Your task to perform on an android device: toggle translation in the chrome app Image 0: 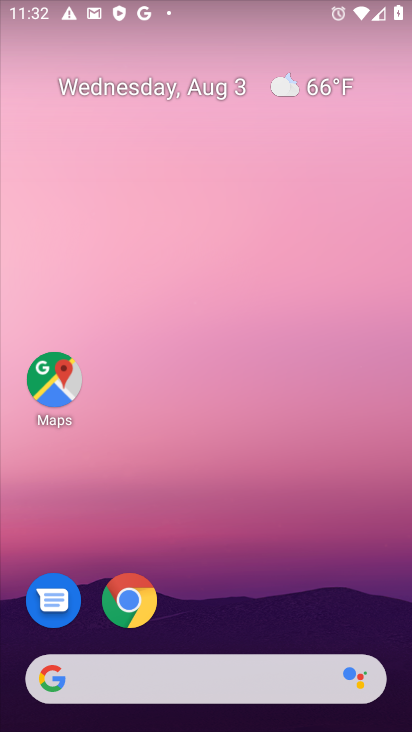
Step 0: drag from (226, 632) to (157, 46)
Your task to perform on an android device: toggle translation in the chrome app Image 1: 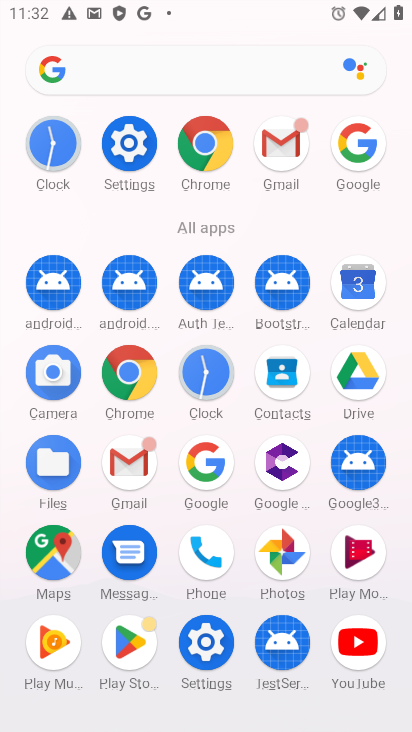
Step 1: click (198, 130)
Your task to perform on an android device: toggle translation in the chrome app Image 2: 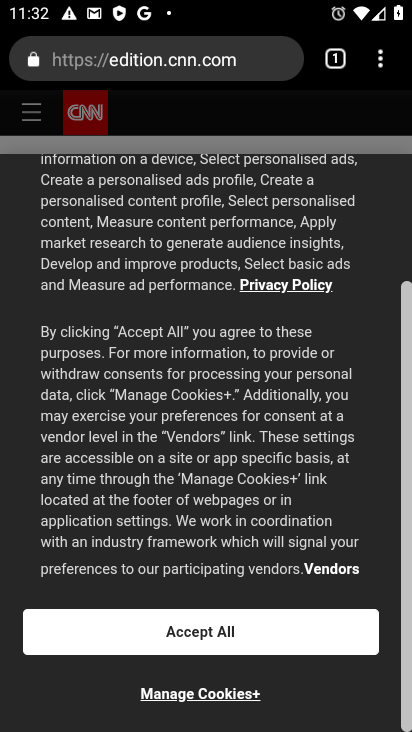
Step 2: click (375, 52)
Your task to perform on an android device: toggle translation in the chrome app Image 3: 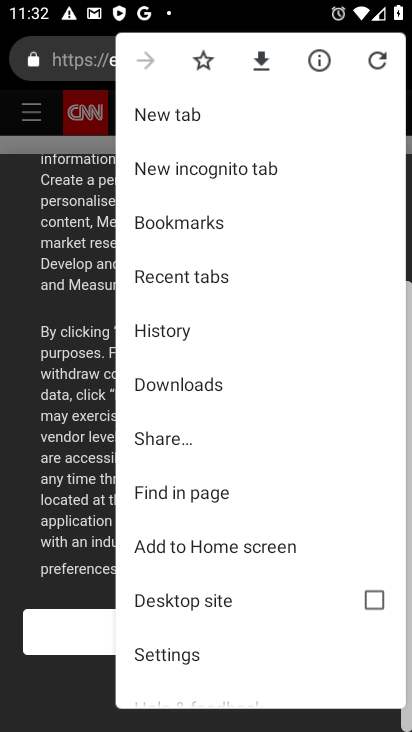
Step 3: click (177, 659)
Your task to perform on an android device: toggle translation in the chrome app Image 4: 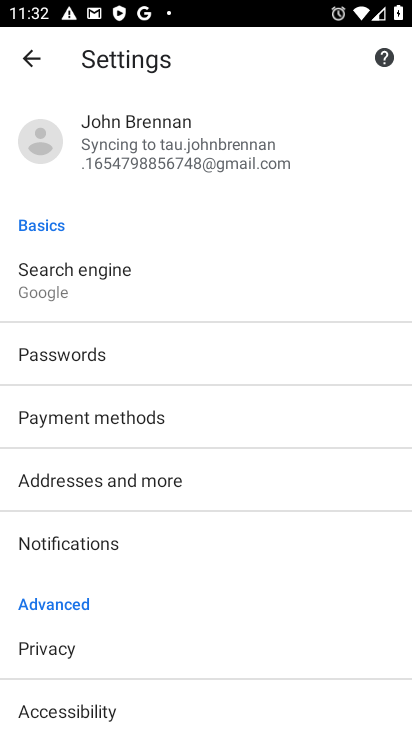
Step 4: drag from (177, 659) to (146, 193)
Your task to perform on an android device: toggle translation in the chrome app Image 5: 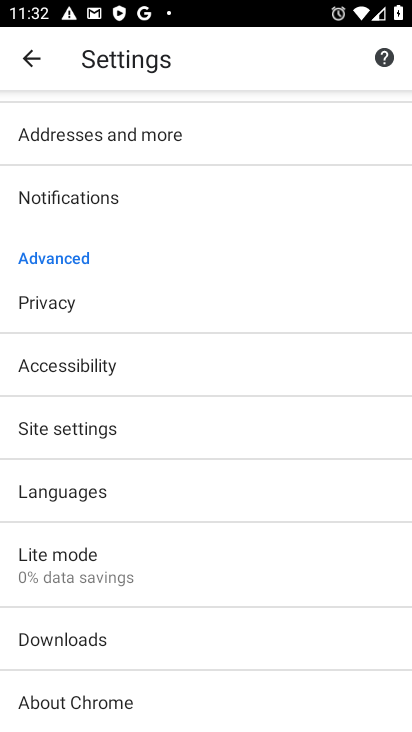
Step 5: click (70, 483)
Your task to perform on an android device: toggle translation in the chrome app Image 6: 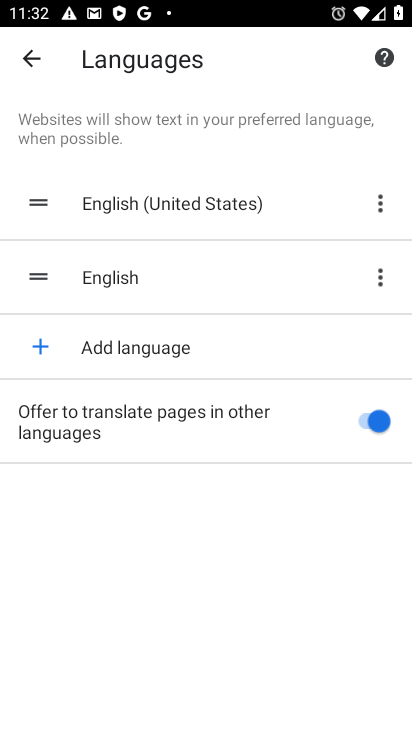
Step 6: click (354, 425)
Your task to perform on an android device: toggle translation in the chrome app Image 7: 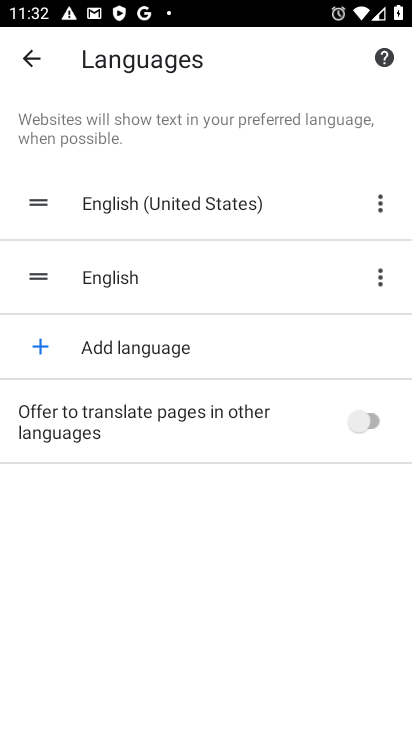
Step 7: task complete